Your task to perform on an android device: Go to accessibility settings Image 0: 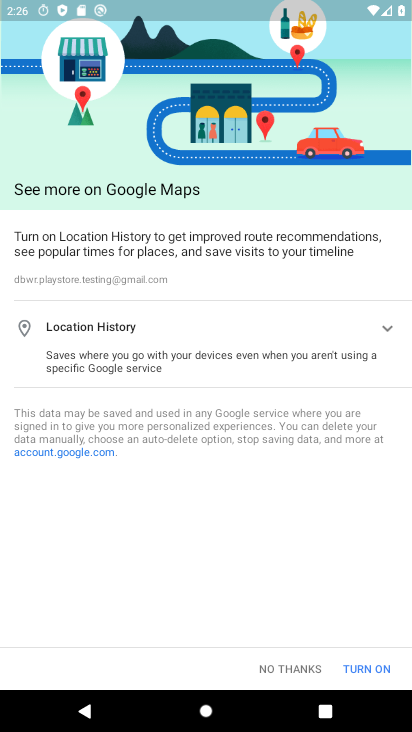
Step 0: click (281, 663)
Your task to perform on an android device: Go to accessibility settings Image 1: 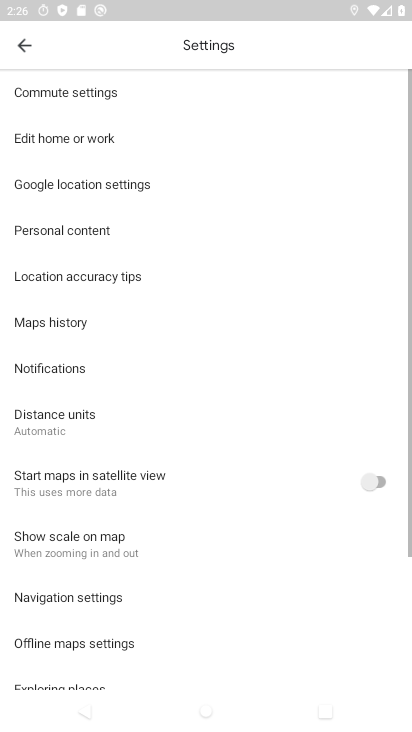
Step 1: press home button
Your task to perform on an android device: Go to accessibility settings Image 2: 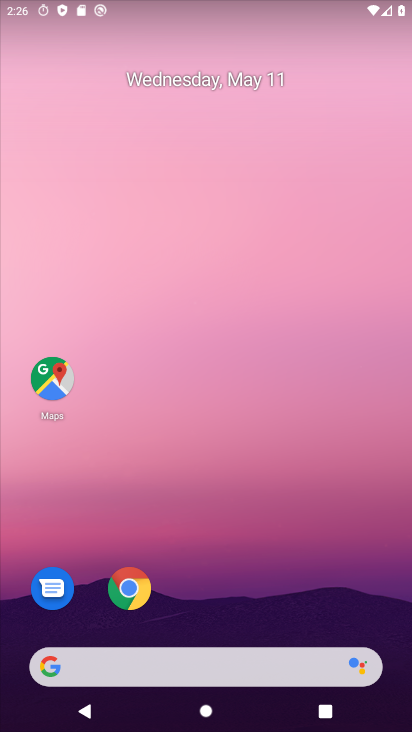
Step 2: drag from (232, 586) to (232, 71)
Your task to perform on an android device: Go to accessibility settings Image 3: 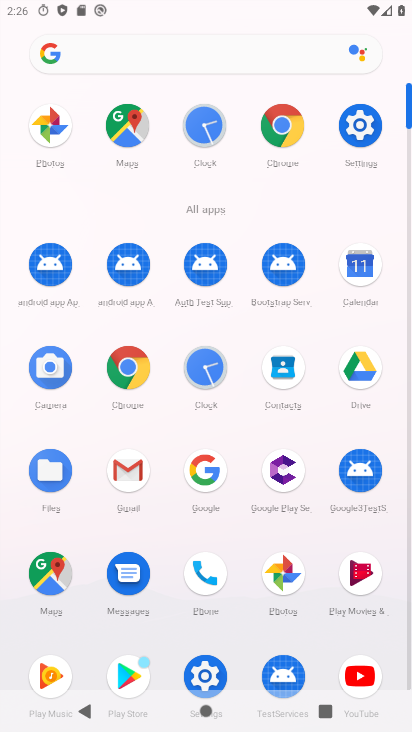
Step 3: click (210, 671)
Your task to perform on an android device: Go to accessibility settings Image 4: 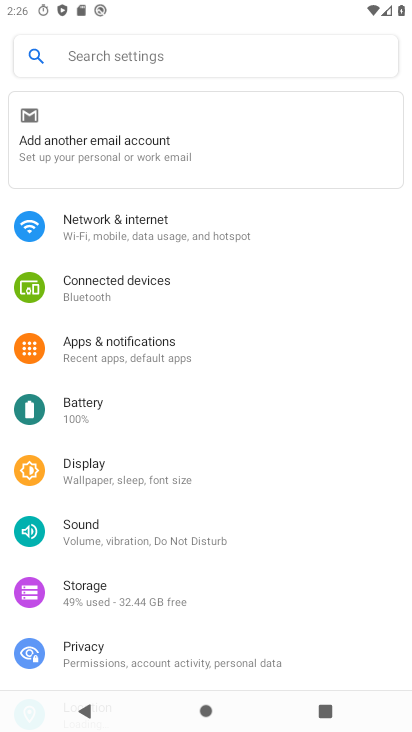
Step 4: drag from (298, 634) to (241, 285)
Your task to perform on an android device: Go to accessibility settings Image 5: 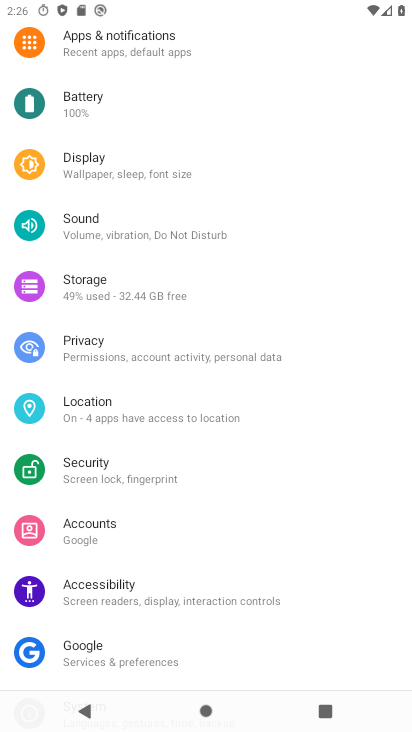
Step 5: click (94, 592)
Your task to perform on an android device: Go to accessibility settings Image 6: 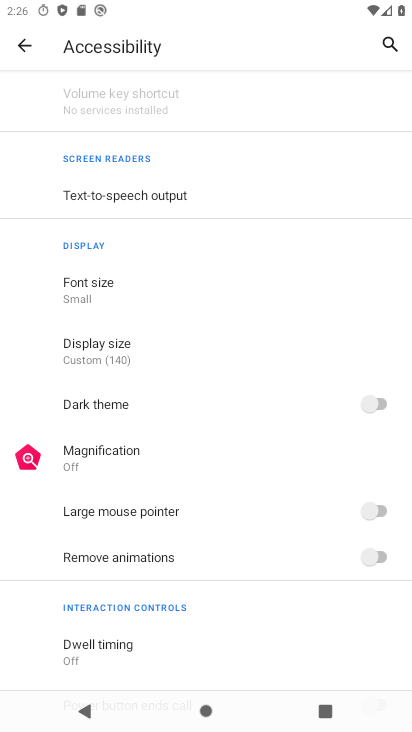
Step 6: task complete